Your task to perform on an android device: Turn off the flashlight Image 0: 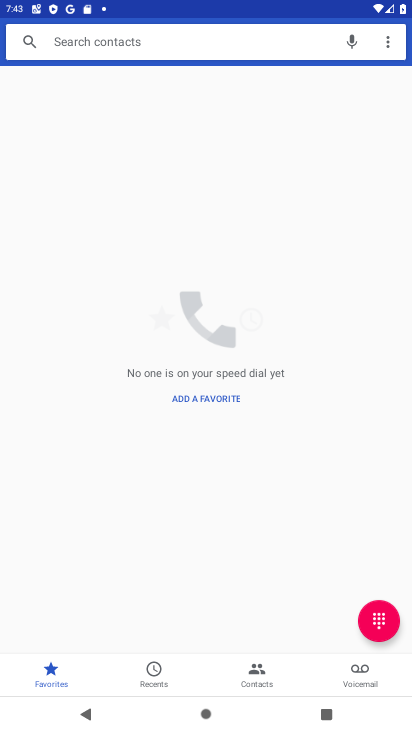
Step 0: drag from (226, 427) to (224, 27)
Your task to perform on an android device: Turn off the flashlight Image 1: 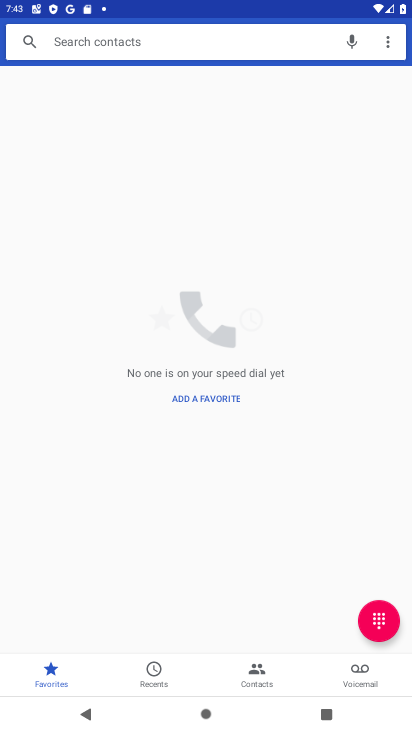
Step 1: task complete